Your task to perform on an android device: Open display settings Image 0: 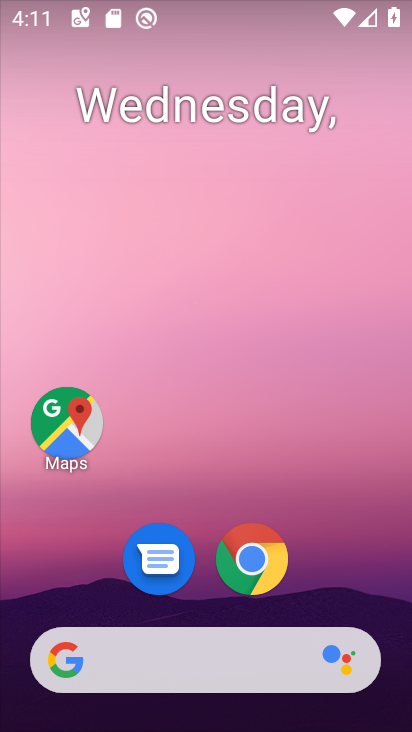
Step 0: drag from (325, 499) to (244, 58)
Your task to perform on an android device: Open display settings Image 1: 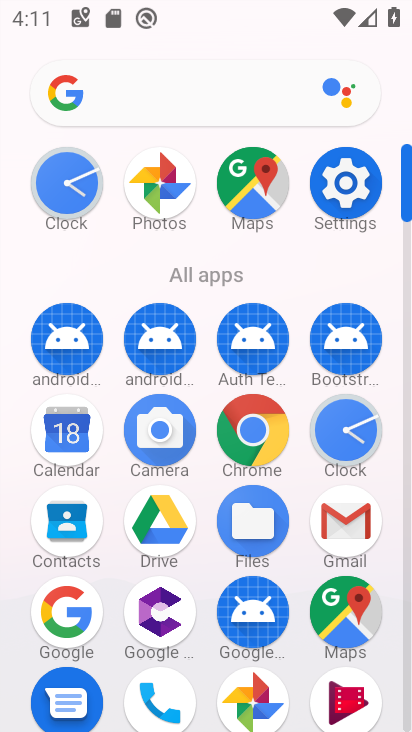
Step 1: click (341, 204)
Your task to perform on an android device: Open display settings Image 2: 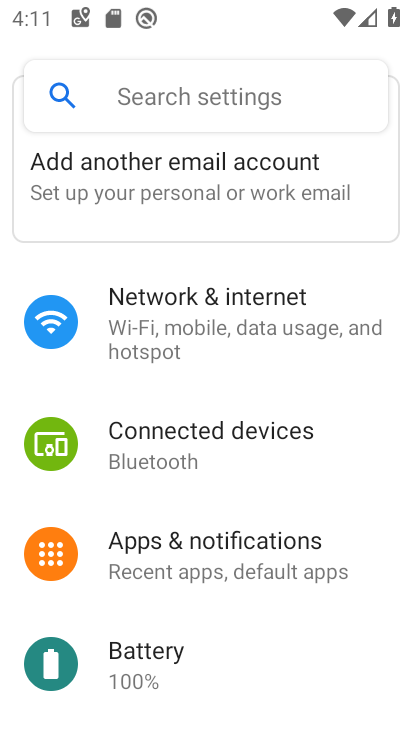
Step 2: drag from (205, 666) to (221, 403)
Your task to perform on an android device: Open display settings Image 3: 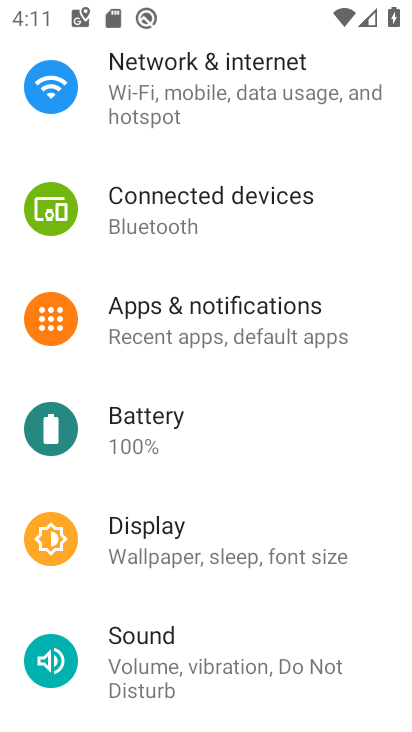
Step 3: click (219, 548)
Your task to perform on an android device: Open display settings Image 4: 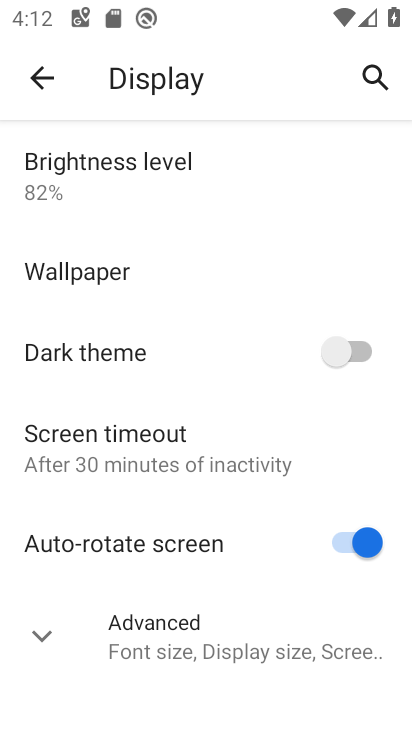
Step 4: task complete